Your task to perform on an android device: toggle pop-ups in chrome Image 0: 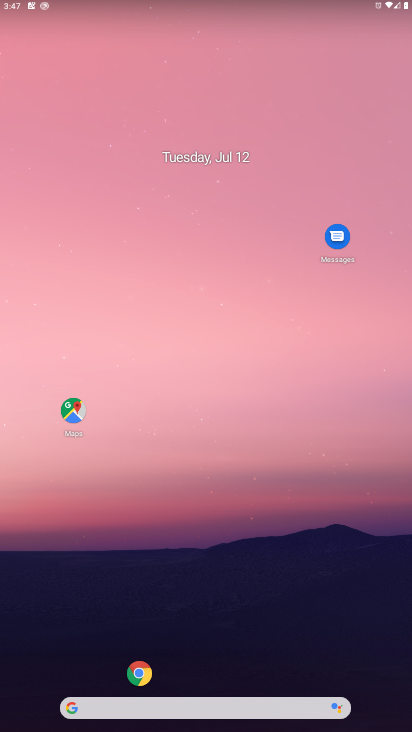
Step 0: click (142, 676)
Your task to perform on an android device: toggle pop-ups in chrome Image 1: 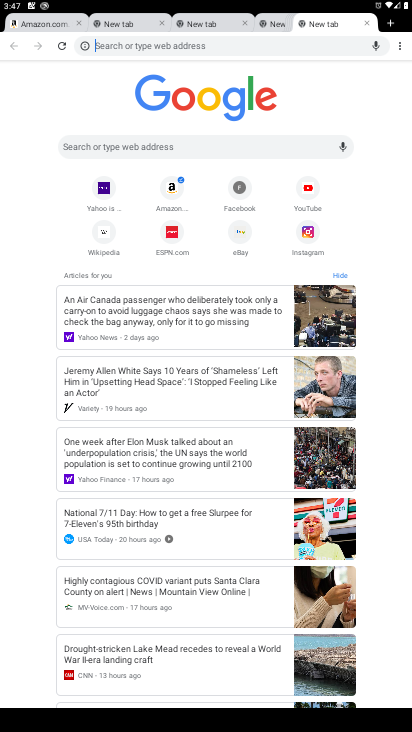
Step 1: click (400, 38)
Your task to perform on an android device: toggle pop-ups in chrome Image 2: 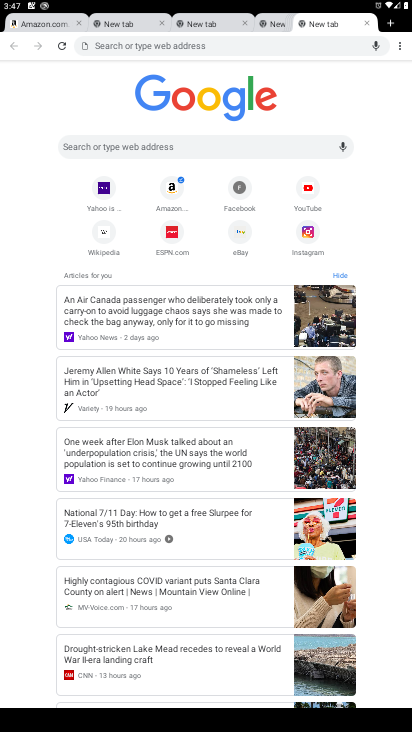
Step 2: click (400, 48)
Your task to perform on an android device: toggle pop-ups in chrome Image 3: 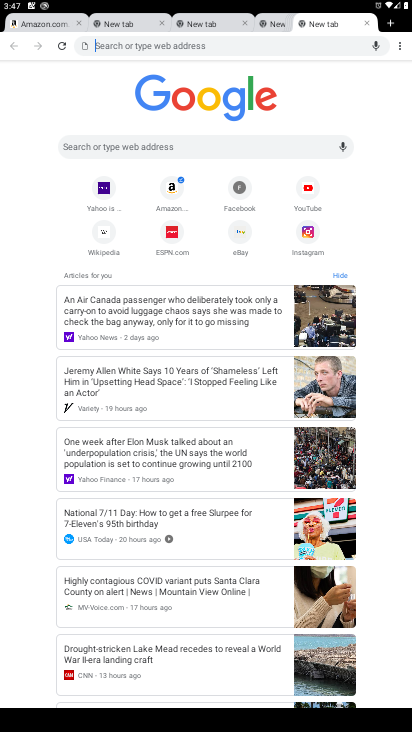
Step 3: click (395, 49)
Your task to perform on an android device: toggle pop-ups in chrome Image 4: 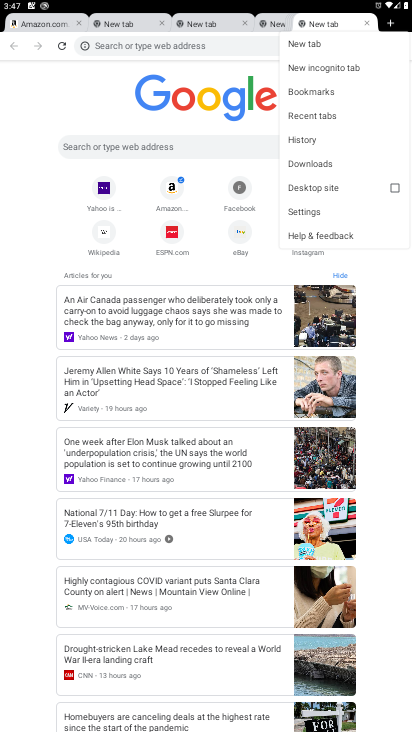
Step 4: click (313, 216)
Your task to perform on an android device: toggle pop-ups in chrome Image 5: 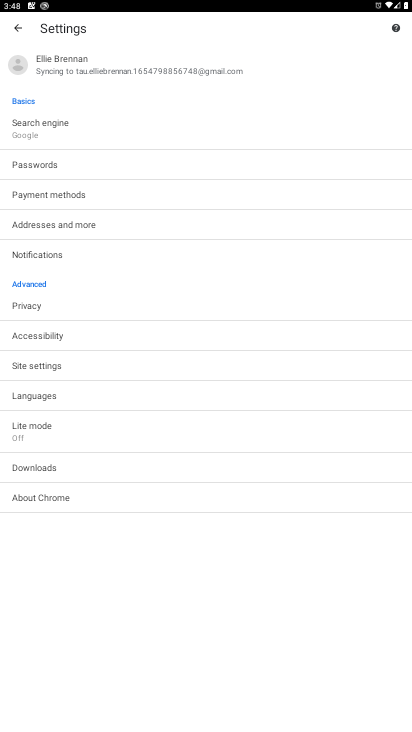
Step 5: click (72, 361)
Your task to perform on an android device: toggle pop-ups in chrome Image 6: 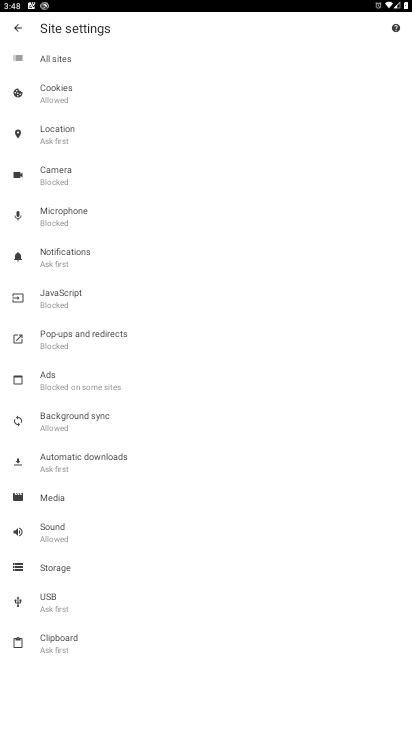
Step 6: task complete